Your task to perform on an android device: turn off smart reply in the gmail app Image 0: 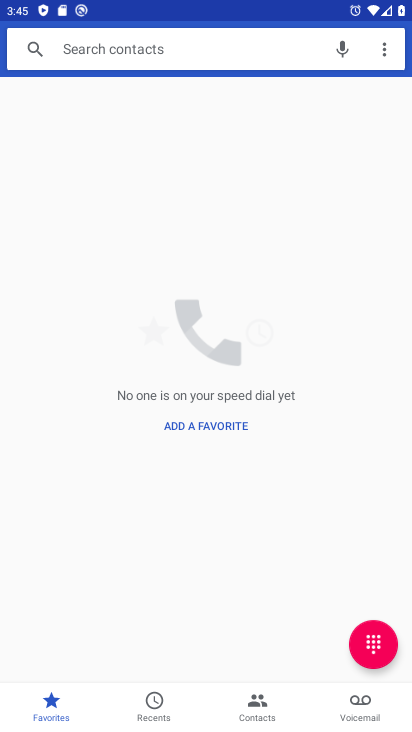
Step 0: press back button
Your task to perform on an android device: turn off smart reply in the gmail app Image 1: 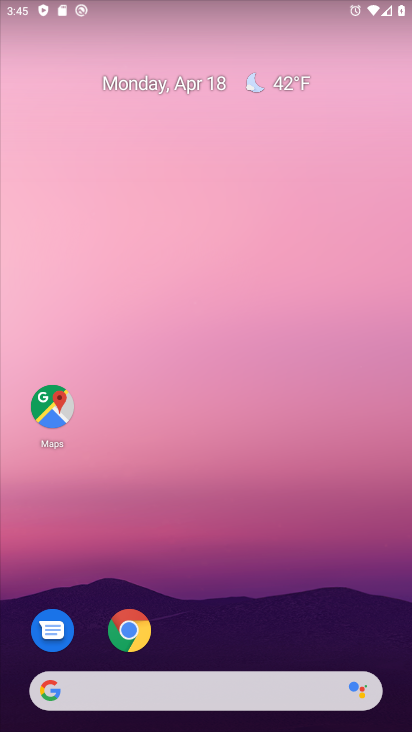
Step 1: drag from (222, 411) to (267, 93)
Your task to perform on an android device: turn off smart reply in the gmail app Image 2: 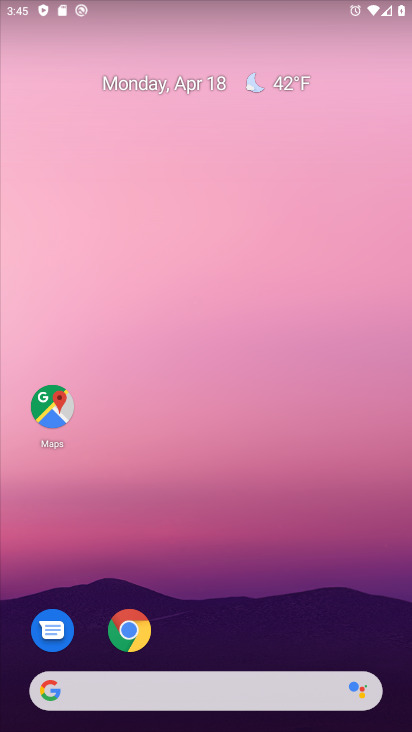
Step 2: drag from (251, 546) to (339, 149)
Your task to perform on an android device: turn off smart reply in the gmail app Image 3: 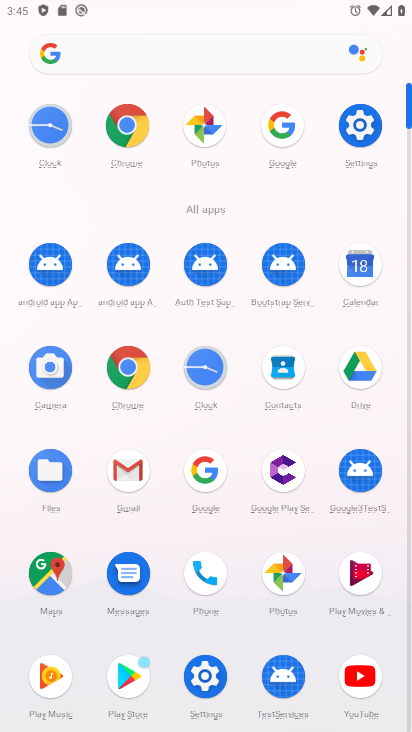
Step 3: click (119, 471)
Your task to perform on an android device: turn off smart reply in the gmail app Image 4: 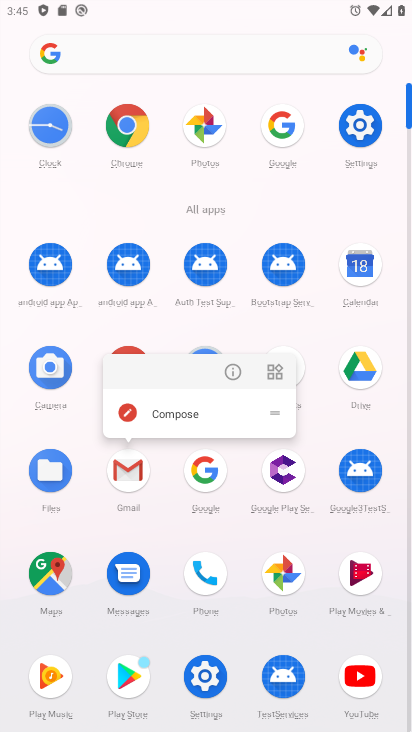
Step 4: click (126, 479)
Your task to perform on an android device: turn off smart reply in the gmail app Image 5: 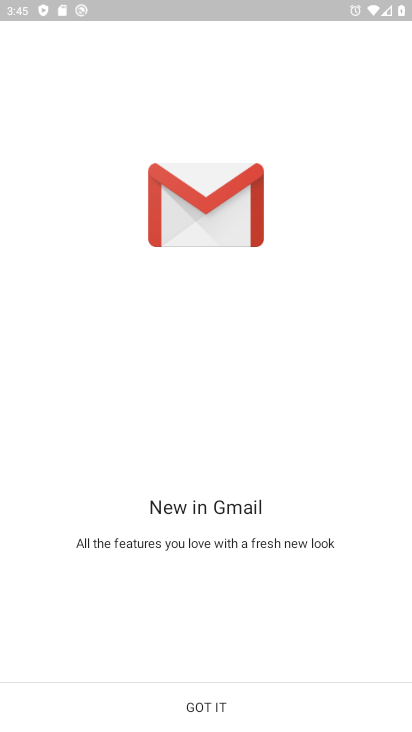
Step 5: click (240, 718)
Your task to perform on an android device: turn off smart reply in the gmail app Image 6: 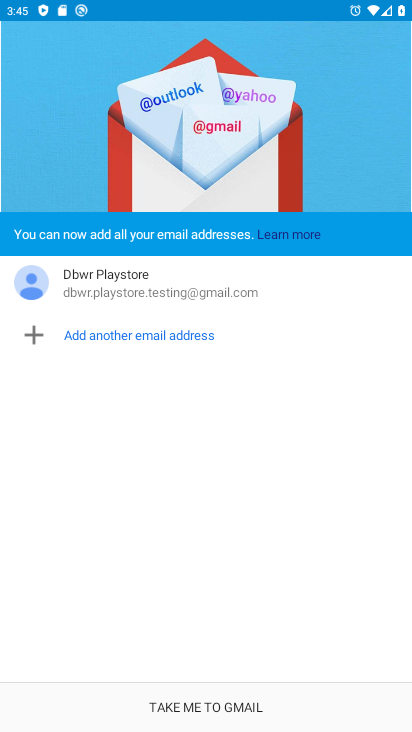
Step 6: click (269, 724)
Your task to perform on an android device: turn off smart reply in the gmail app Image 7: 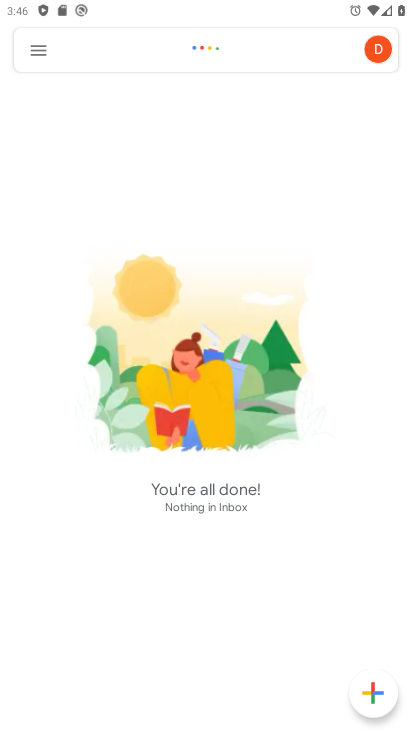
Step 7: click (42, 51)
Your task to perform on an android device: turn off smart reply in the gmail app Image 8: 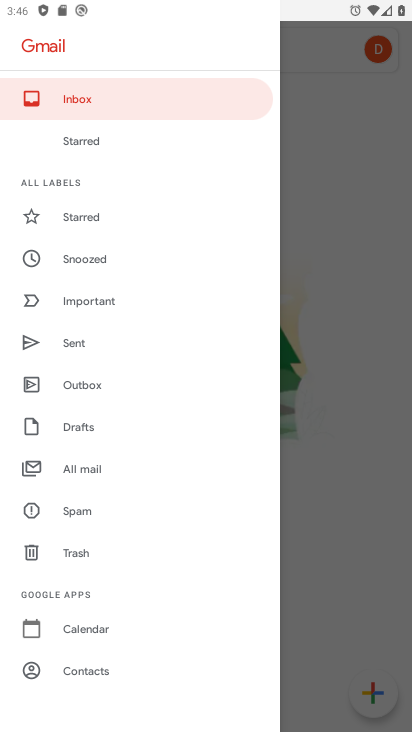
Step 8: drag from (96, 582) to (171, 245)
Your task to perform on an android device: turn off smart reply in the gmail app Image 9: 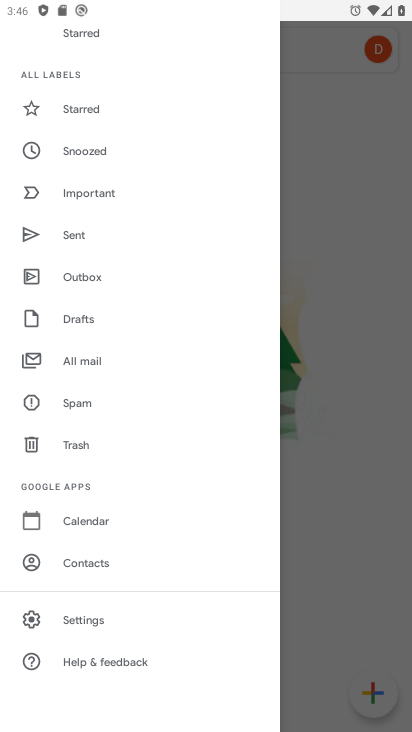
Step 9: click (125, 613)
Your task to perform on an android device: turn off smart reply in the gmail app Image 10: 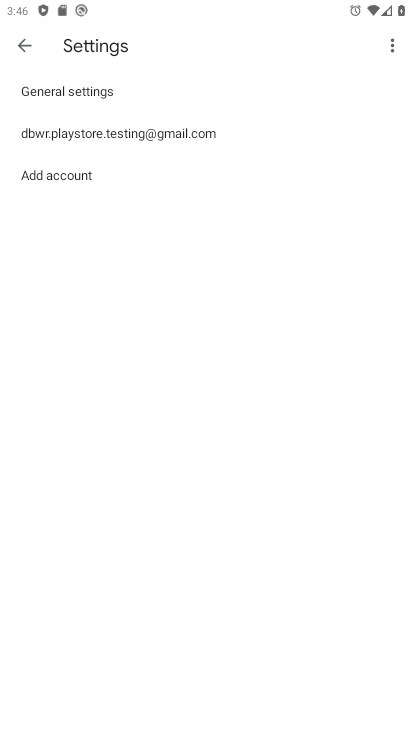
Step 10: click (174, 126)
Your task to perform on an android device: turn off smart reply in the gmail app Image 11: 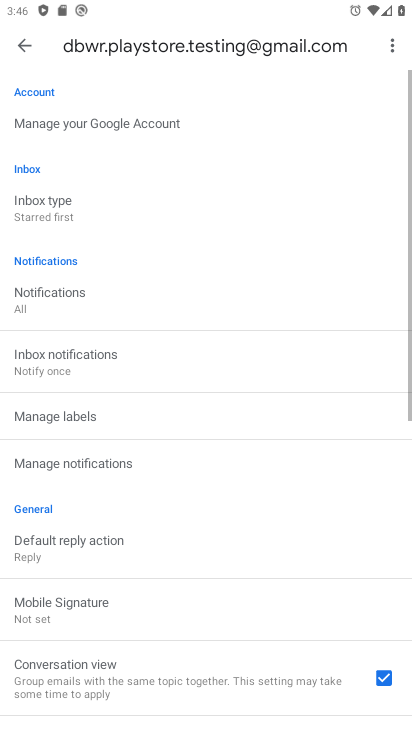
Step 11: drag from (147, 579) to (240, 214)
Your task to perform on an android device: turn off smart reply in the gmail app Image 12: 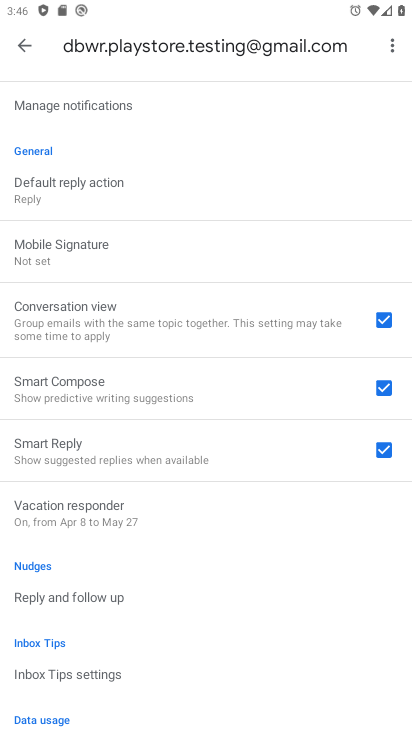
Step 12: drag from (116, 609) to (202, 318)
Your task to perform on an android device: turn off smart reply in the gmail app Image 13: 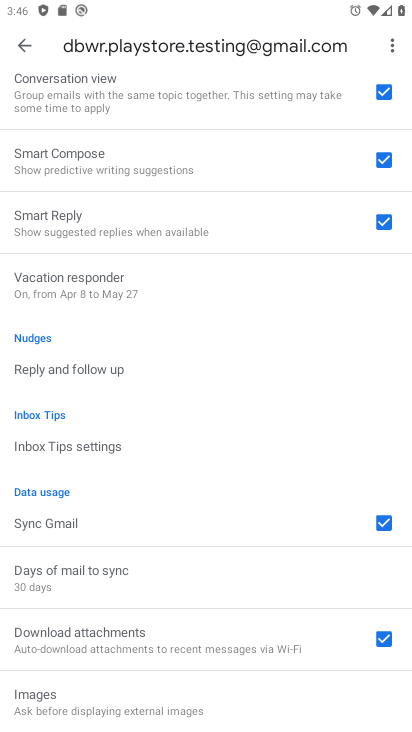
Step 13: drag from (183, 417) to (213, 292)
Your task to perform on an android device: turn off smart reply in the gmail app Image 14: 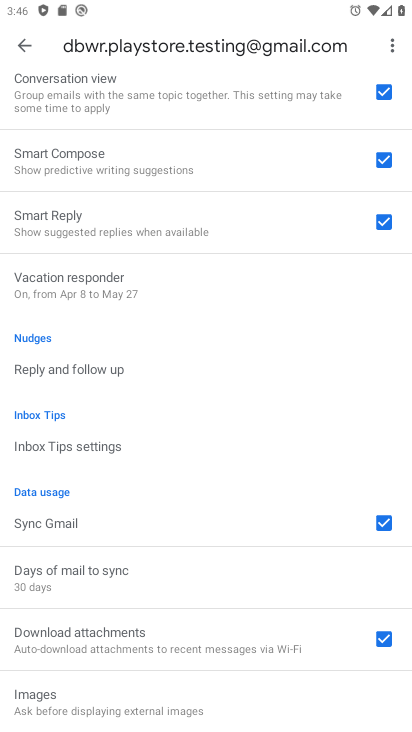
Step 14: click (392, 222)
Your task to perform on an android device: turn off smart reply in the gmail app Image 15: 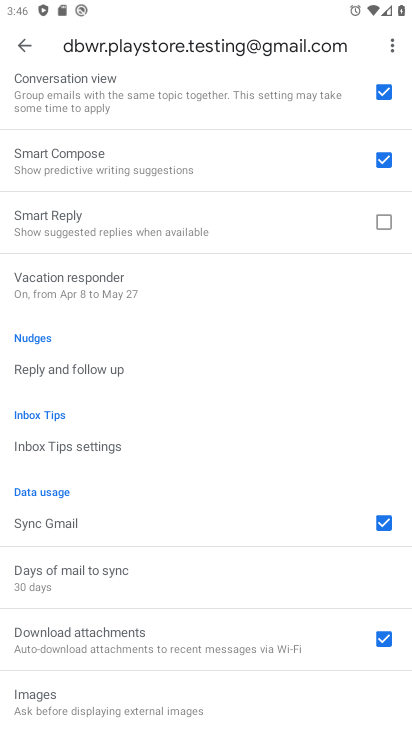
Step 15: task complete